Your task to perform on an android device: show emergency info Image 0: 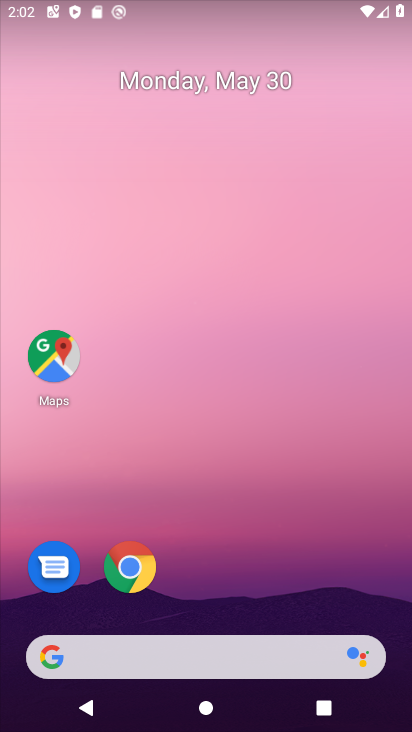
Step 0: drag from (217, 622) to (273, 183)
Your task to perform on an android device: show emergency info Image 1: 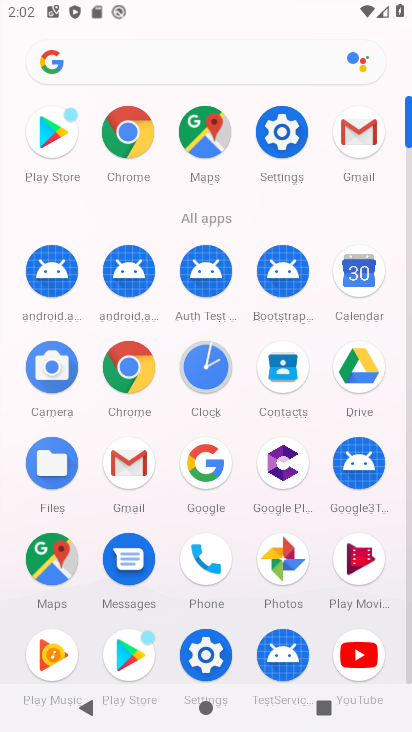
Step 1: click (286, 120)
Your task to perform on an android device: show emergency info Image 2: 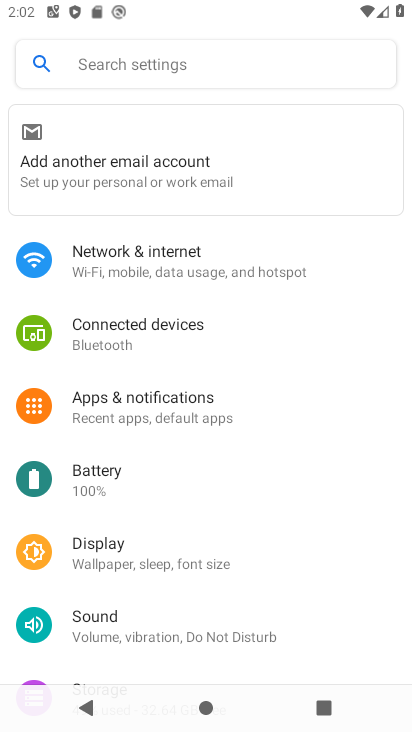
Step 2: drag from (152, 568) to (202, 171)
Your task to perform on an android device: show emergency info Image 3: 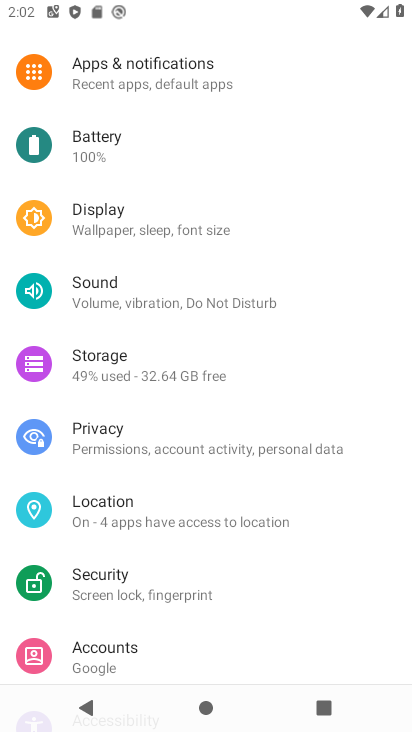
Step 3: drag from (141, 567) to (175, 176)
Your task to perform on an android device: show emergency info Image 4: 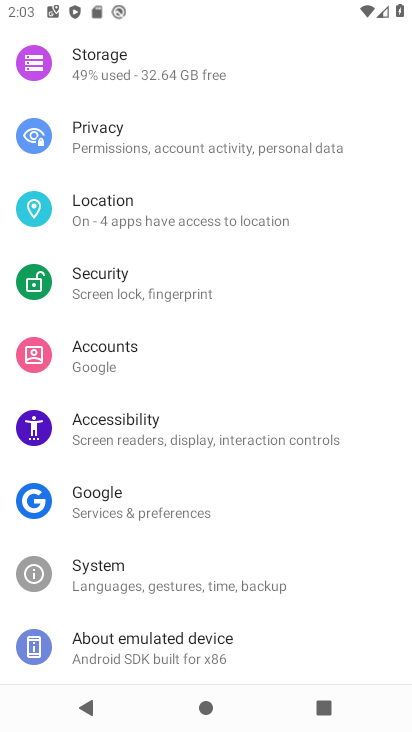
Step 4: click (143, 652)
Your task to perform on an android device: show emergency info Image 5: 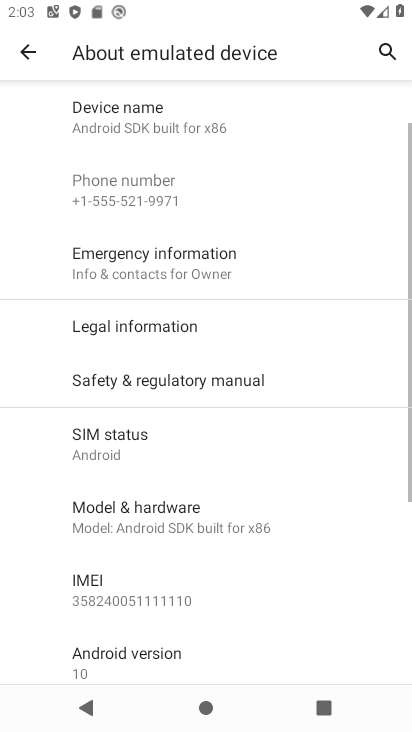
Step 5: click (178, 256)
Your task to perform on an android device: show emergency info Image 6: 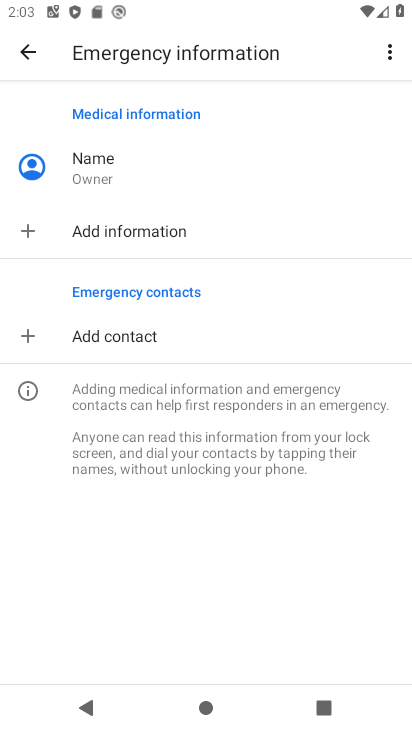
Step 6: task complete